Your task to perform on an android device: Go to calendar. Show me events next week Image 0: 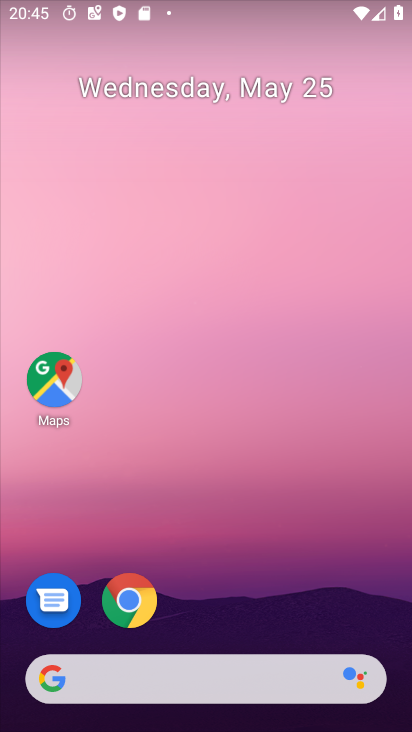
Step 0: drag from (312, 593) to (286, 129)
Your task to perform on an android device: Go to calendar. Show me events next week Image 1: 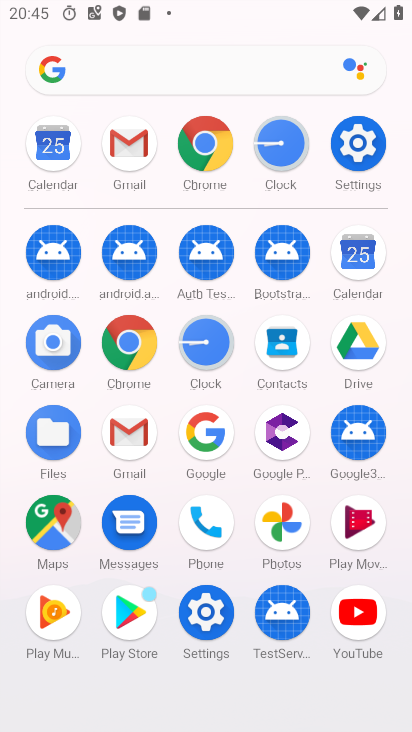
Step 1: click (355, 263)
Your task to perform on an android device: Go to calendar. Show me events next week Image 2: 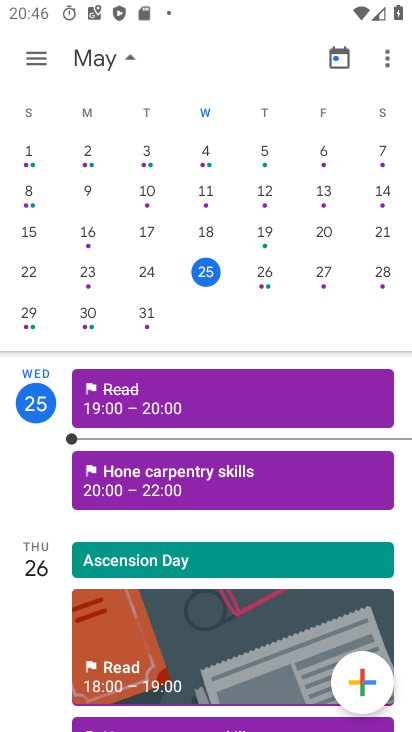
Step 2: task complete